Your task to perform on an android device: Open calendar and show me the fourth week of next month Image 0: 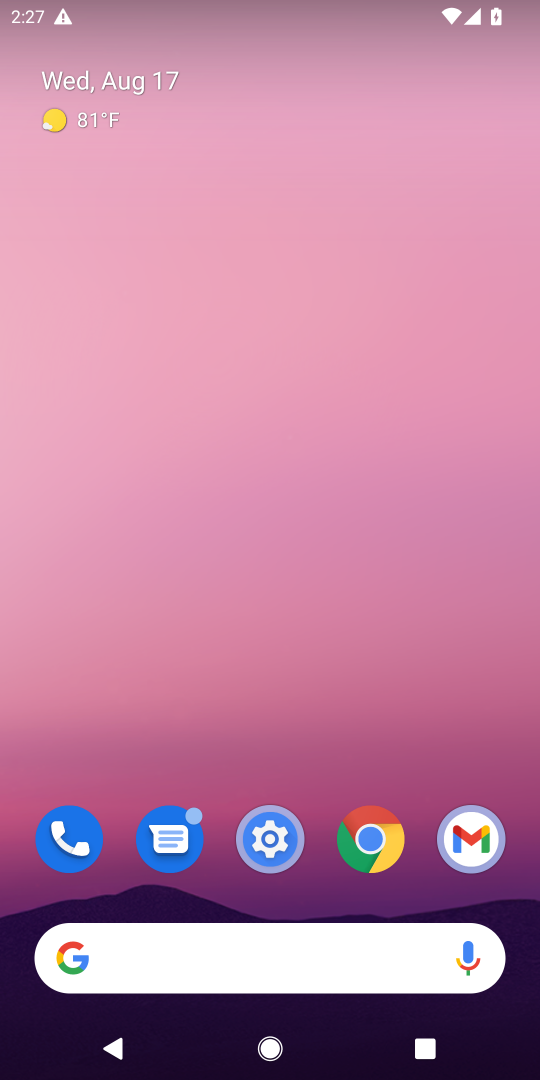
Step 0: drag from (322, 860) to (322, 160)
Your task to perform on an android device: Open calendar and show me the fourth week of next month Image 1: 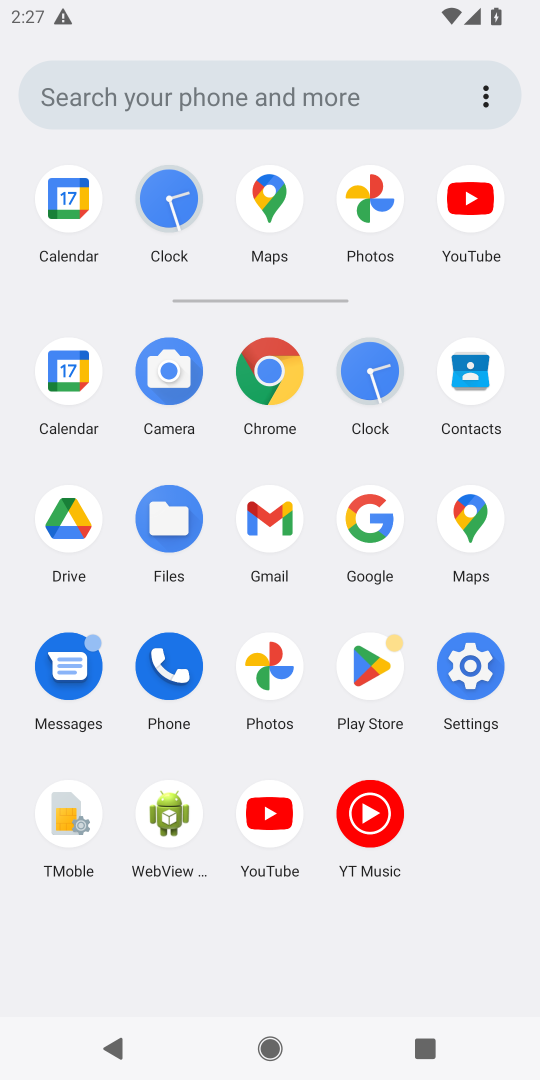
Step 1: click (71, 379)
Your task to perform on an android device: Open calendar and show me the fourth week of next month Image 2: 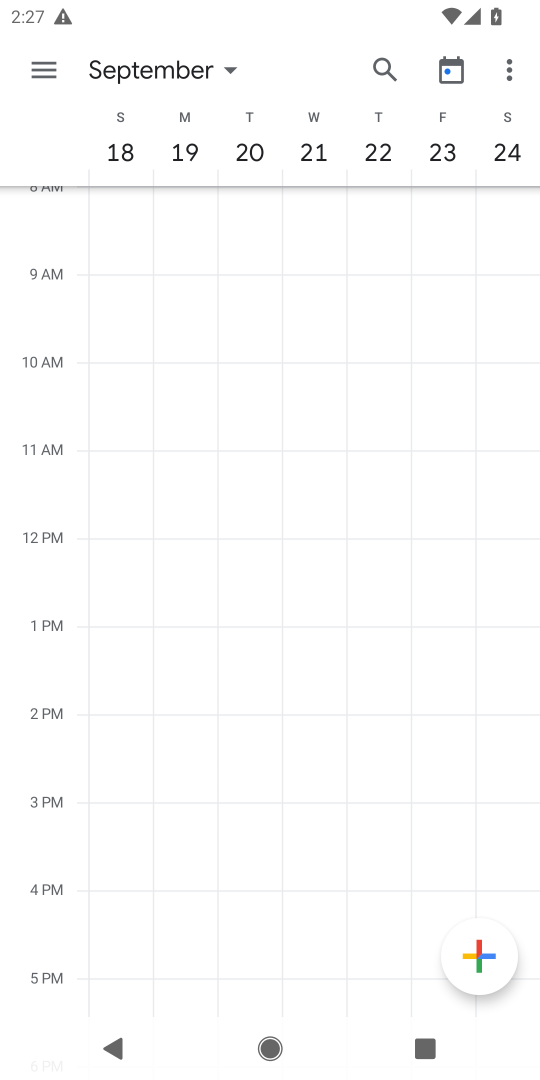
Step 2: task complete